Your task to perform on an android device: Go to Reddit.com Image 0: 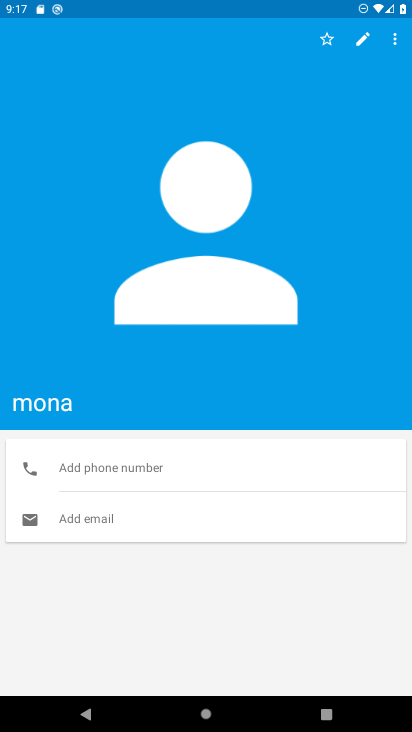
Step 0: press home button
Your task to perform on an android device: Go to Reddit.com Image 1: 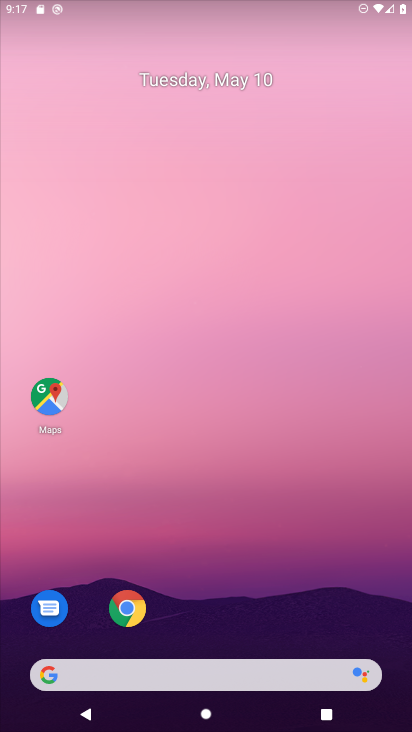
Step 1: drag from (377, 605) to (284, 54)
Your task to perform on an android device: Go to Reddit.com Image 2: 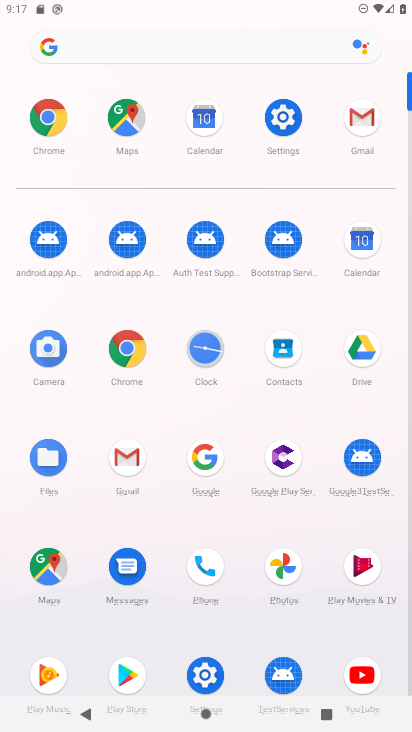
Step 2: click (121, 360)
Your task to perform on an android device: Go to Reddit.com Image 3: 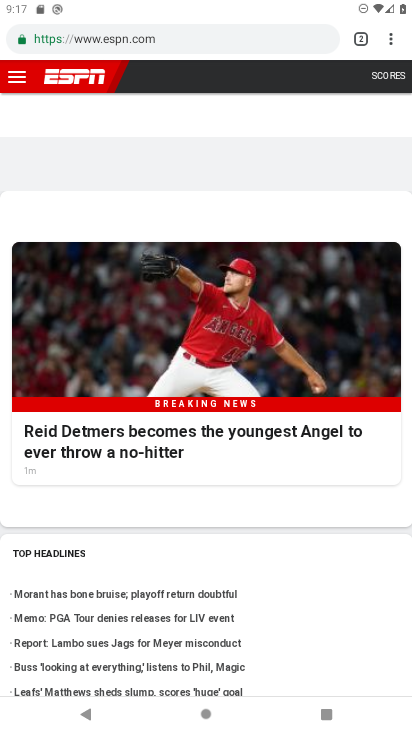
Step 3: press back button
Your task to perform on an android device: Go to Reddit.com Image 4: 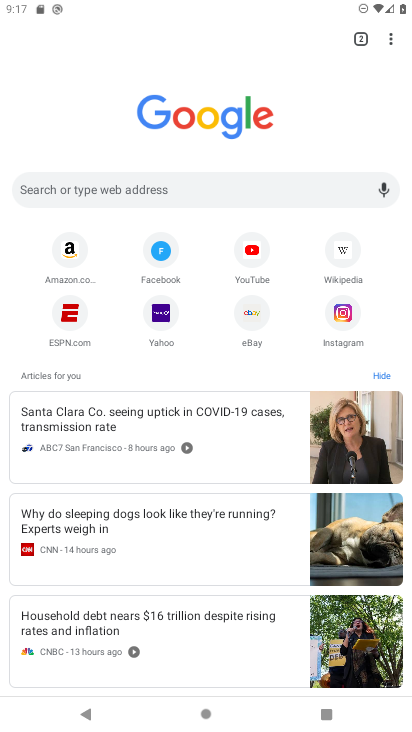
Step 4: click (150, 192)
Your task to perform on an android device: Go to Reddit.com Image 5: 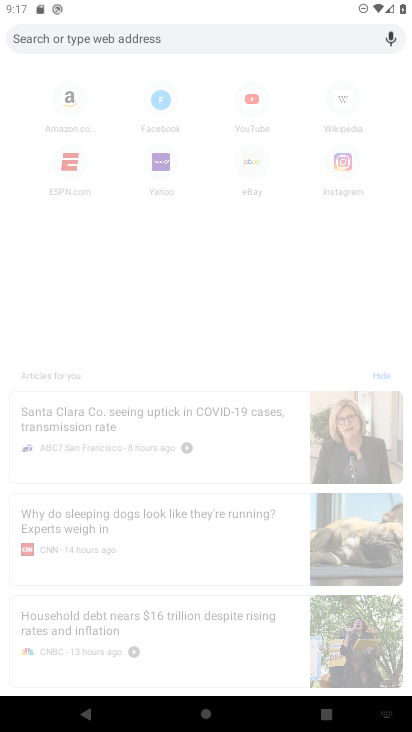
Step 5: type "reddit.com"
Your task to perform on an android device: Go to Reddit.com Image 6: 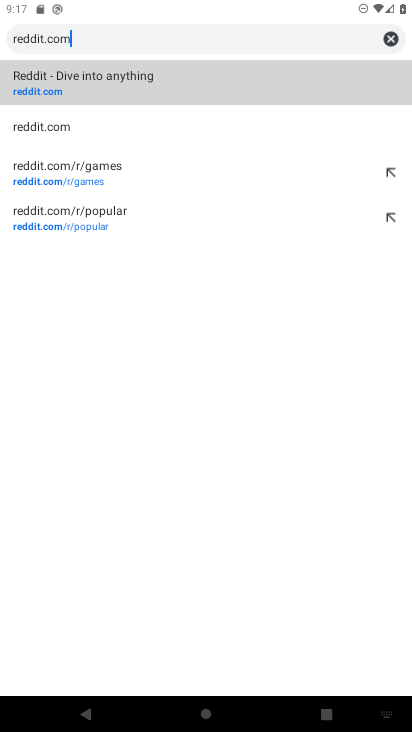
Step 6: click (225, 71)
Your task to perform on an android device: Go to Reddit.com Image 7: 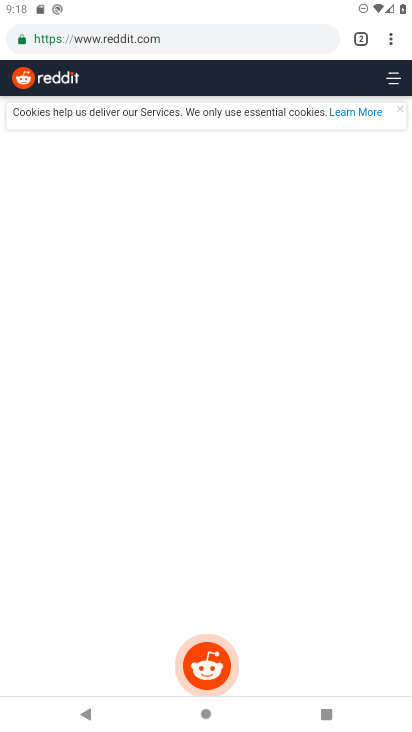
Step 7: task complete